Your task to perform on an android device: What is the capital of Italy? Image 0: 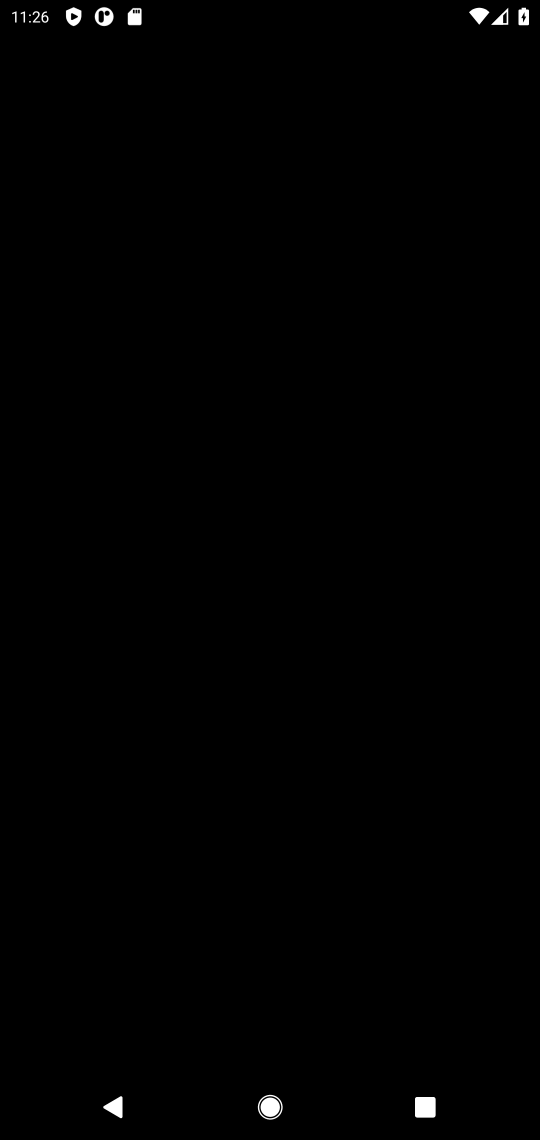
Step 0: click (389, 914)
Your task to perform on an android device: What is the capital of Italy? Image 1: 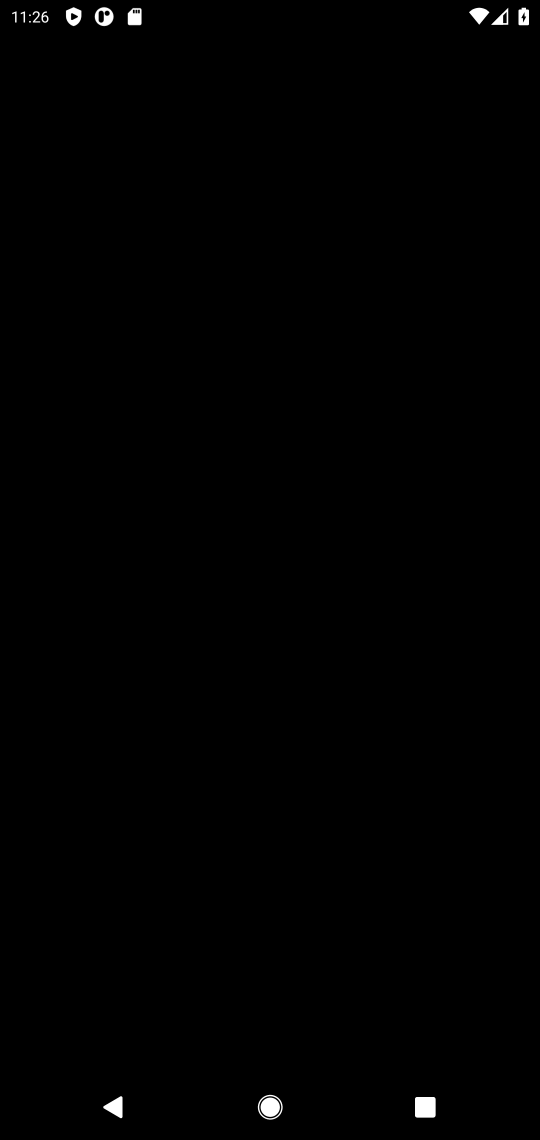
Step 1: press home button
Your task to perform on an android device: What is the capital of Italy? Image 2: 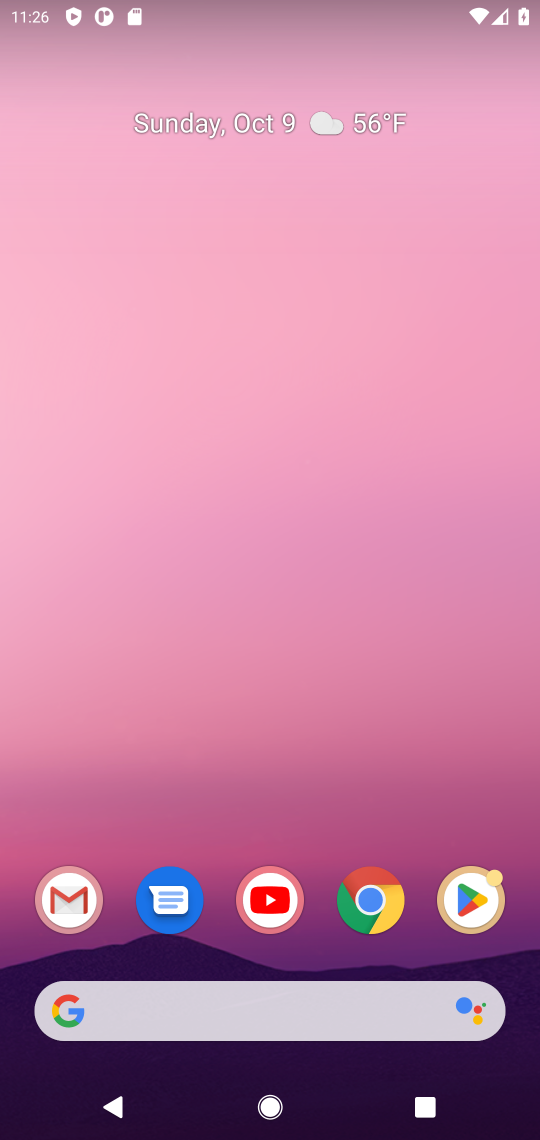
Step 2: press home button
Your task to perform on an android device: What is the capital of Italy? Image 3: 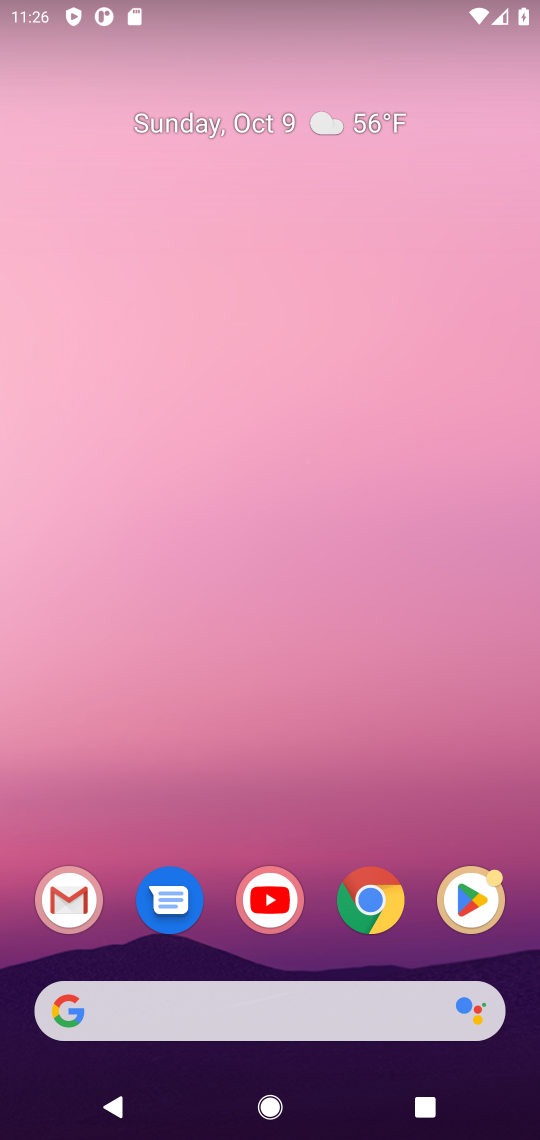
Step 3: press home button
Your task to perform on an android device: What is the capital of Italy? Image 4: 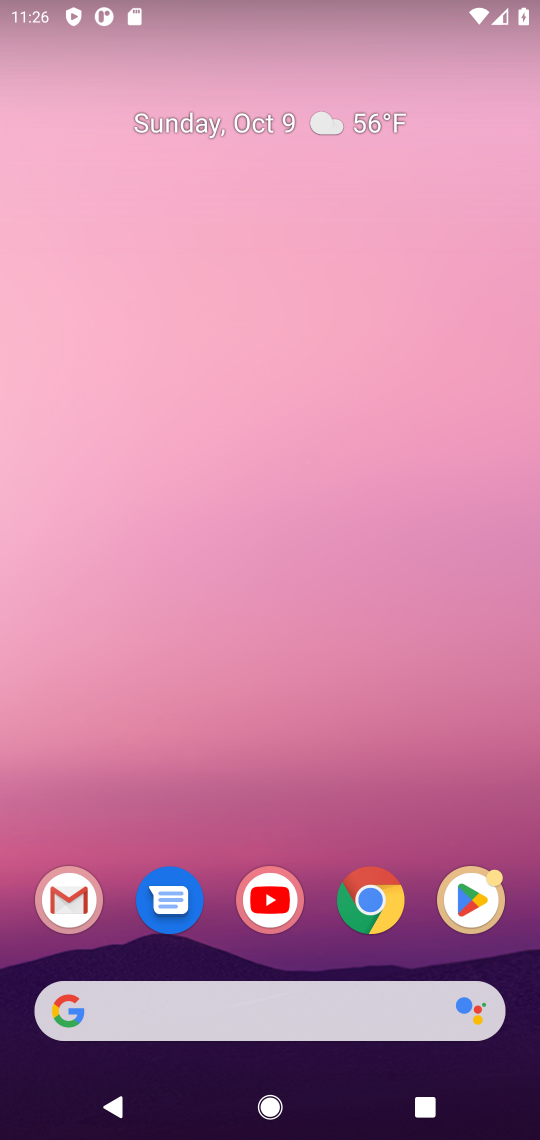
Step 4: click (358, 903)
Your task to perform on an android device: What is the capital of Italy? Image 5: 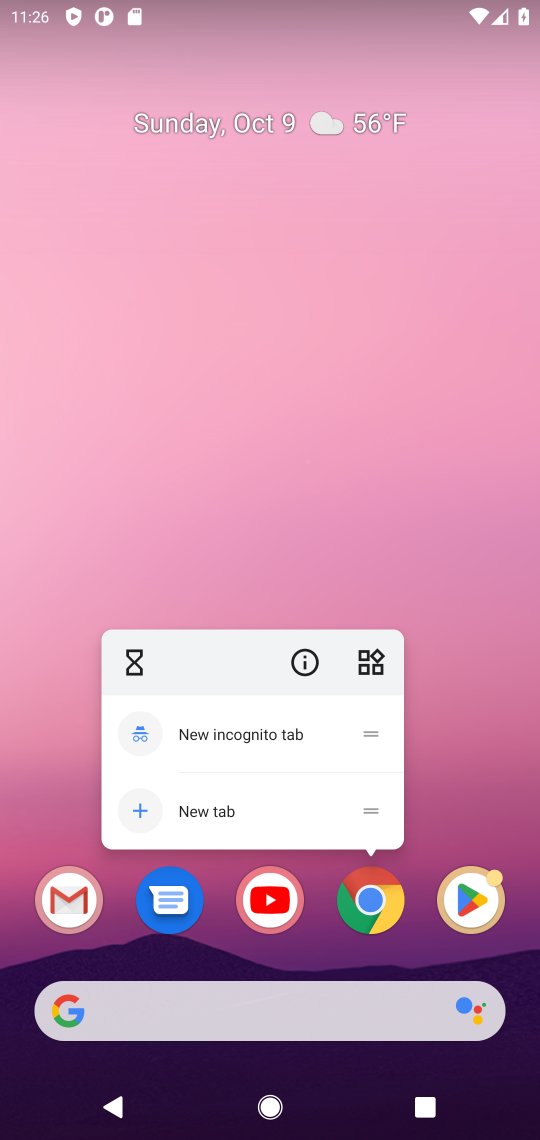
Step 5: click (332, 1020)
Your task to perform on an android device: What is the capital of Italy? Image 6: 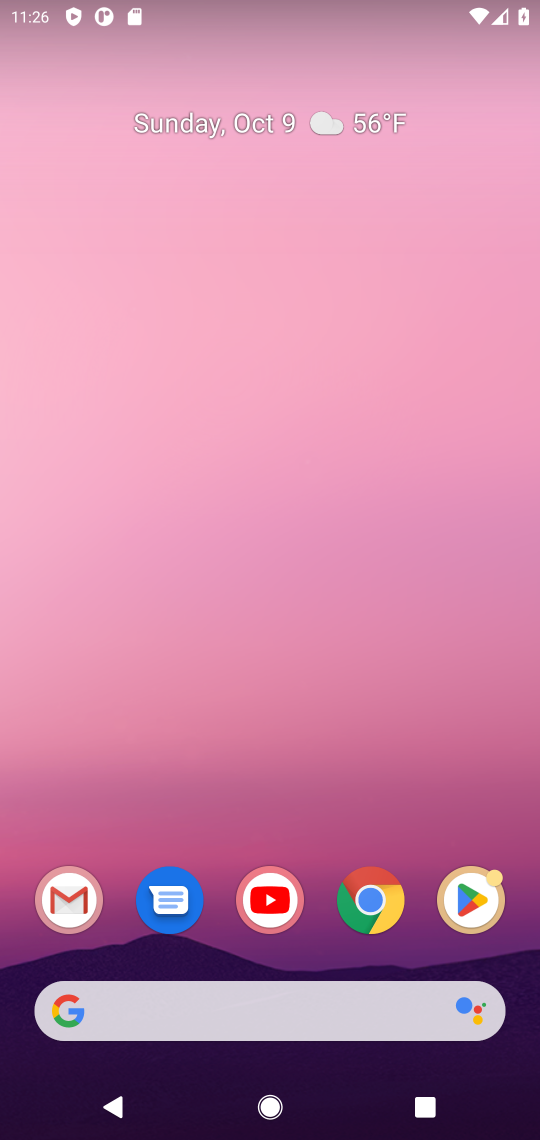
Step 6: click (332, 1020)
Your task to perform on an android device: What is the capital of Italy? Image 7: 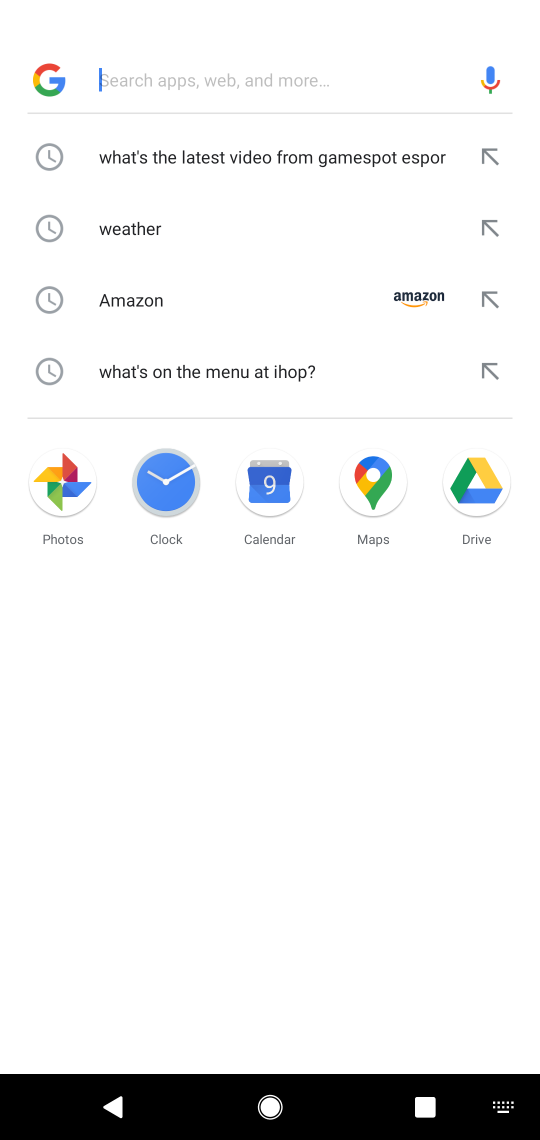
Step 7: type "What is the capital of Italy?"
Your task to perform on an android device: What is the capital of Italy? Image 8: 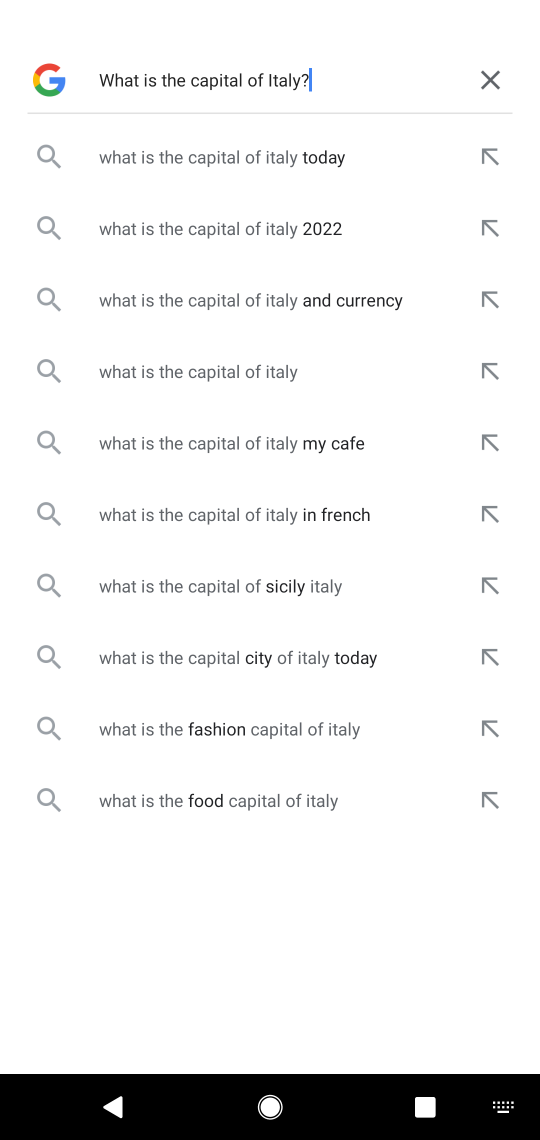
Step 8: type ""
Your task to perform on an android device: What is the capital of Italy? Image 9: 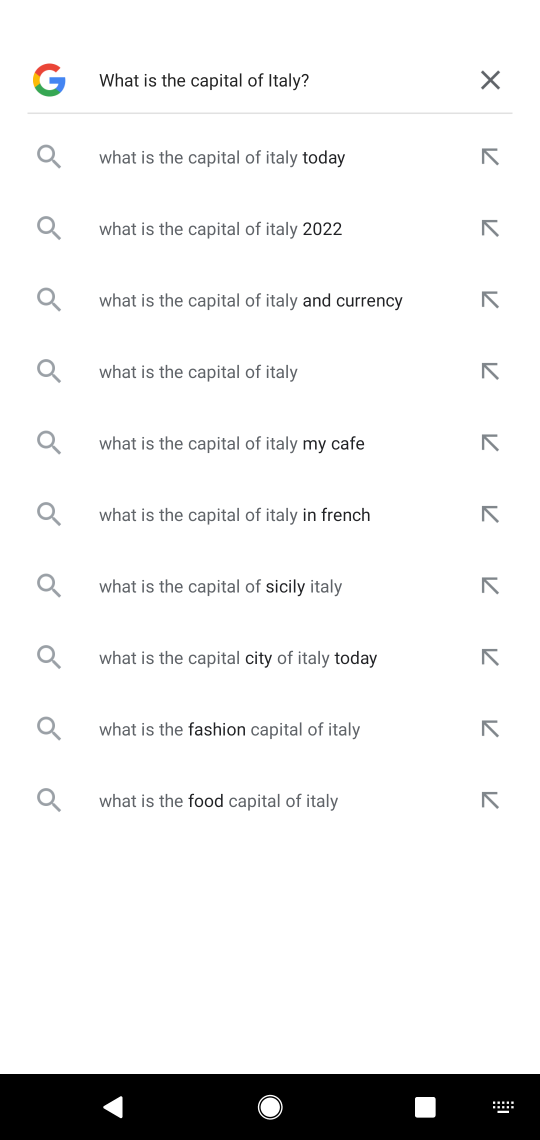
Step 9: press enter
Your task to perform on an android device: What is the capital of Italy? Image 10: 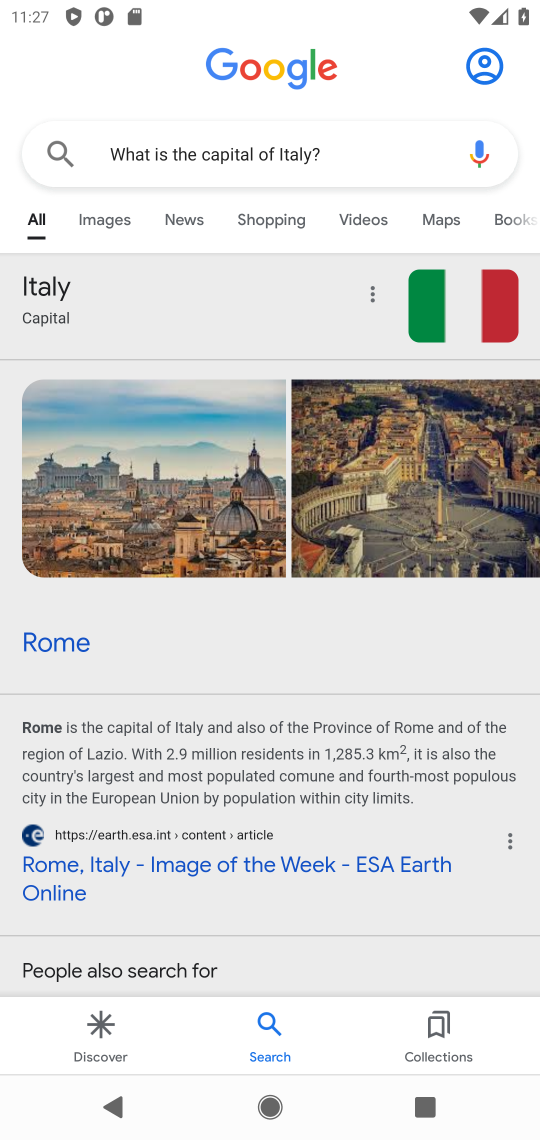
Step 10: click (87, 639)
Your task to perform on an android device: What is the capital of Italy? Image 11: 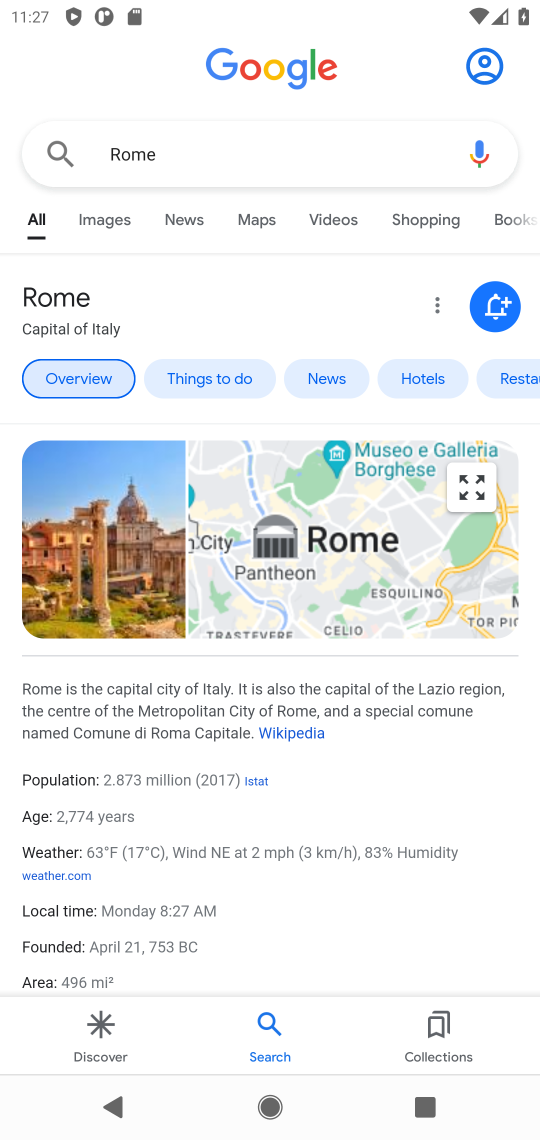
Step 11: drag from (202, 787) to (191, 383)
Your task to perform on an android device: What is the capital of Italy? Image 12: 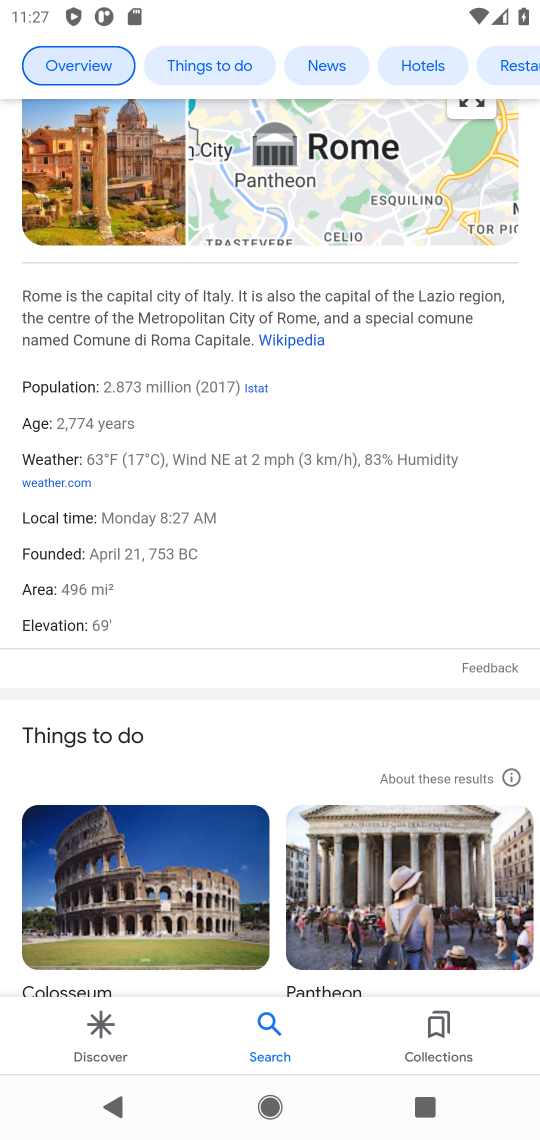
Step 12: click (280, 335)
Your task to perform on an android device: What is the capital of Italy? Image 13: 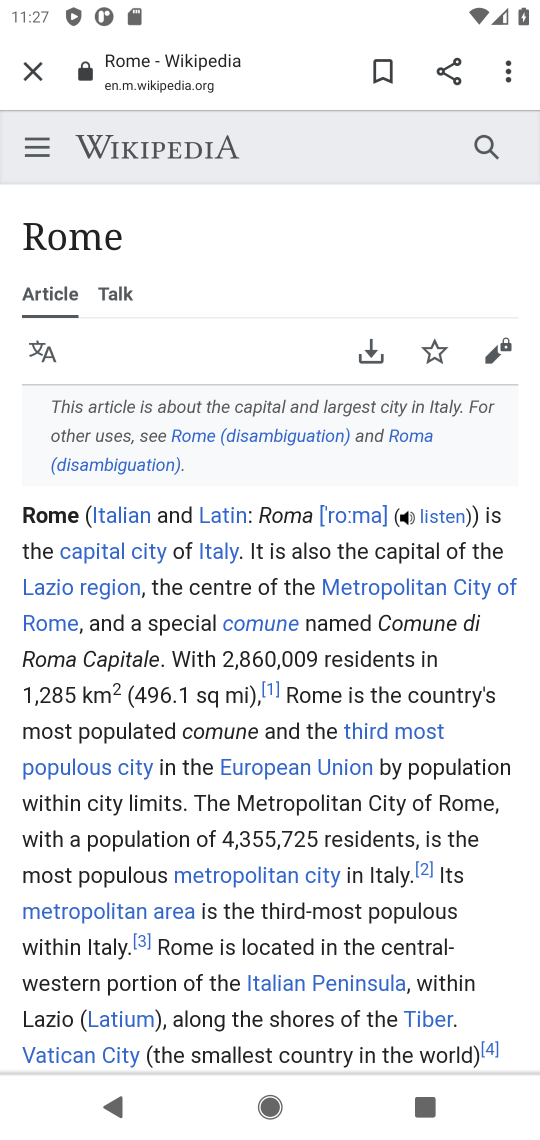
Step 13: drag from (310, 851) to (295, 314)
Your task to perform on an android device: What is the capital of Italy? Image 14: 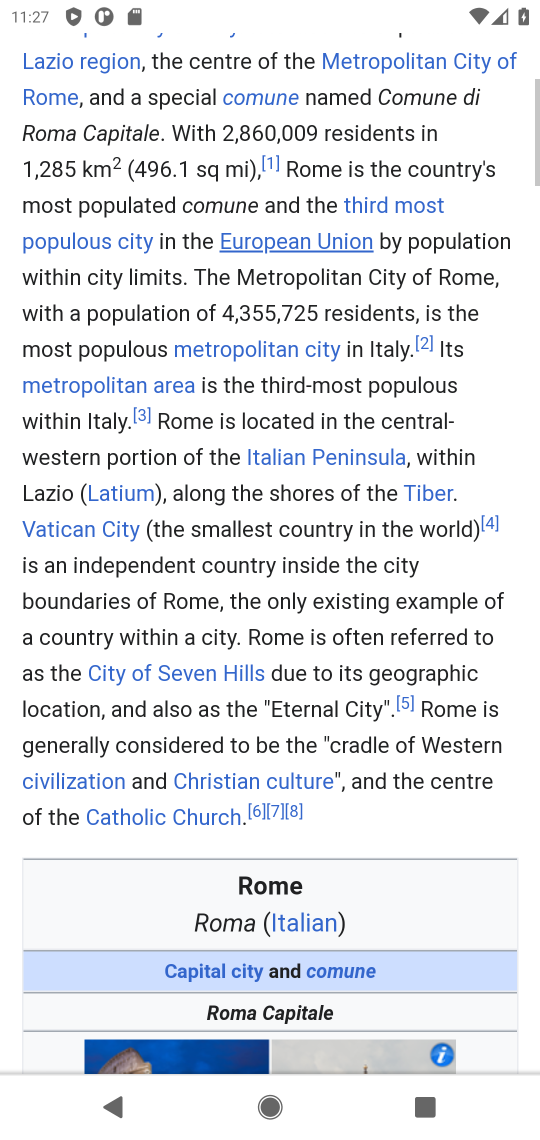
Step 14: drag from (250, 825) to (266, 343)
Your task to perform on an android device: What is the capital of Italy? Image 15: 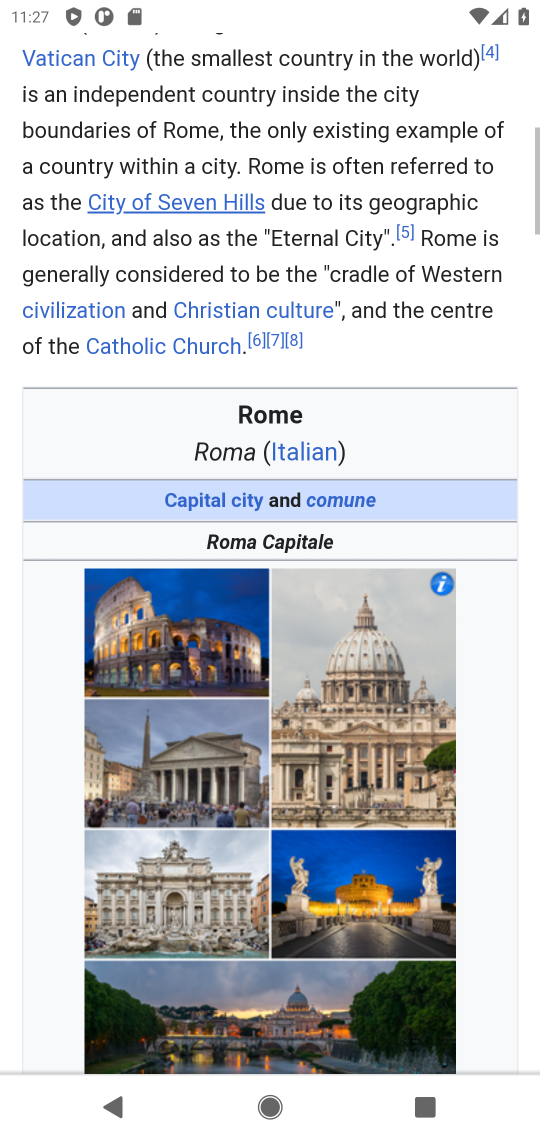
Step 15: drag from (291, 980) to (301, 325)
Your task to perform on an android device: What is the capital of Italy? Image 16: 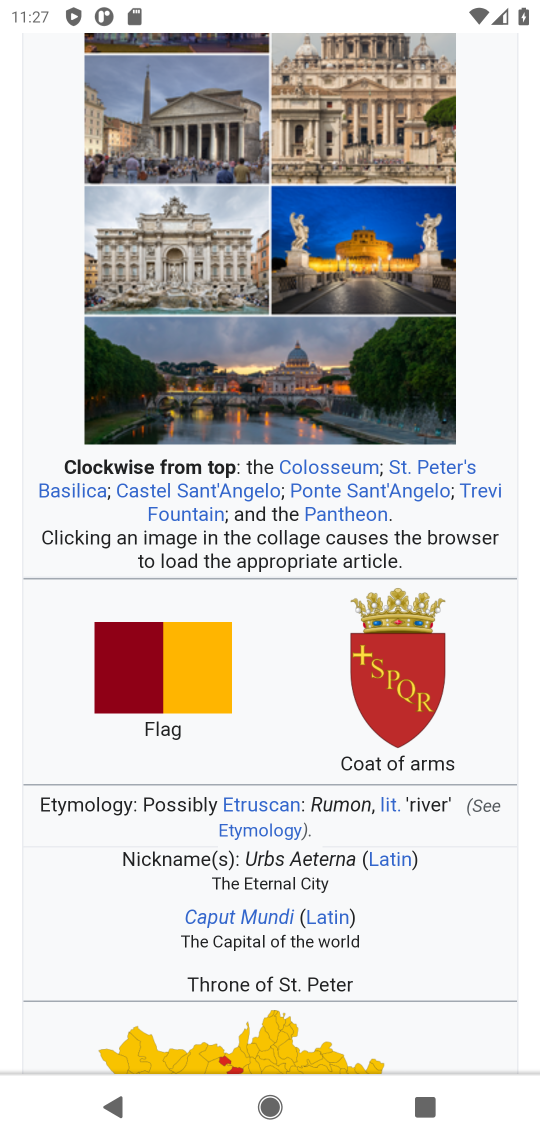
Step 16: drag from (267, 769) to (229, 255)
Your task to perform on an android device: What is the capital of Italy? Image 17: 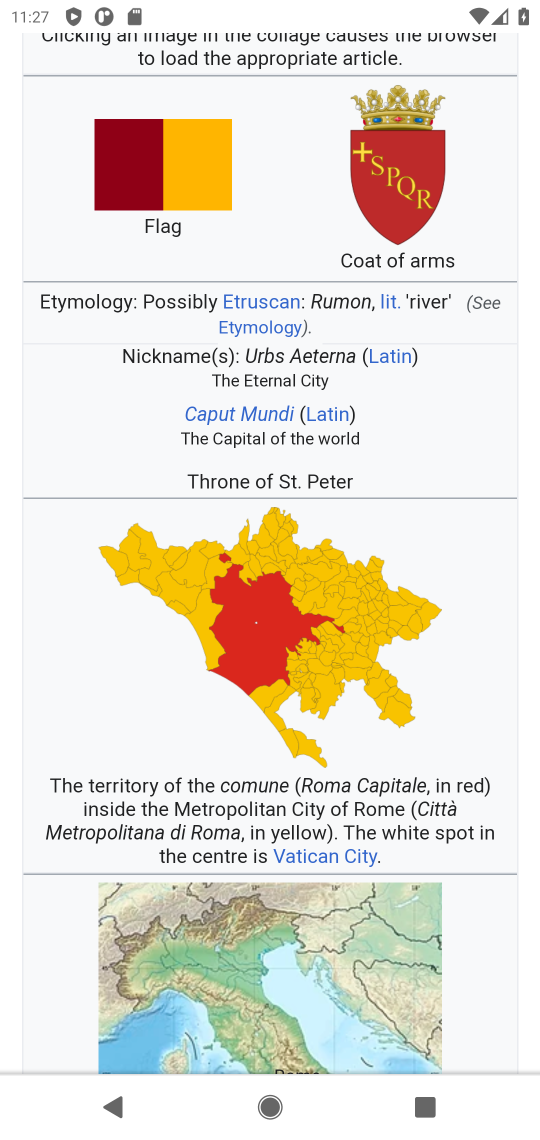
Step 17: drag from (307, 767) to (301, 183)
Your task to perform on an android device: What is the capital of Italy? Image 18: 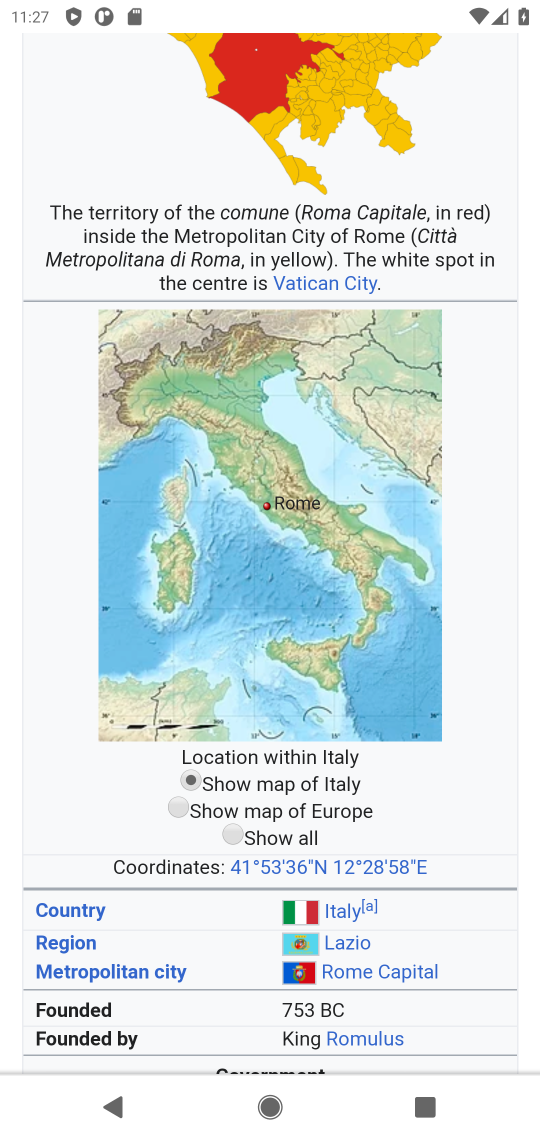
Step 18: drag from (357, 379) to (368, 134)
Your task to perform on an android device: What is the capital of Italy? Image 19: 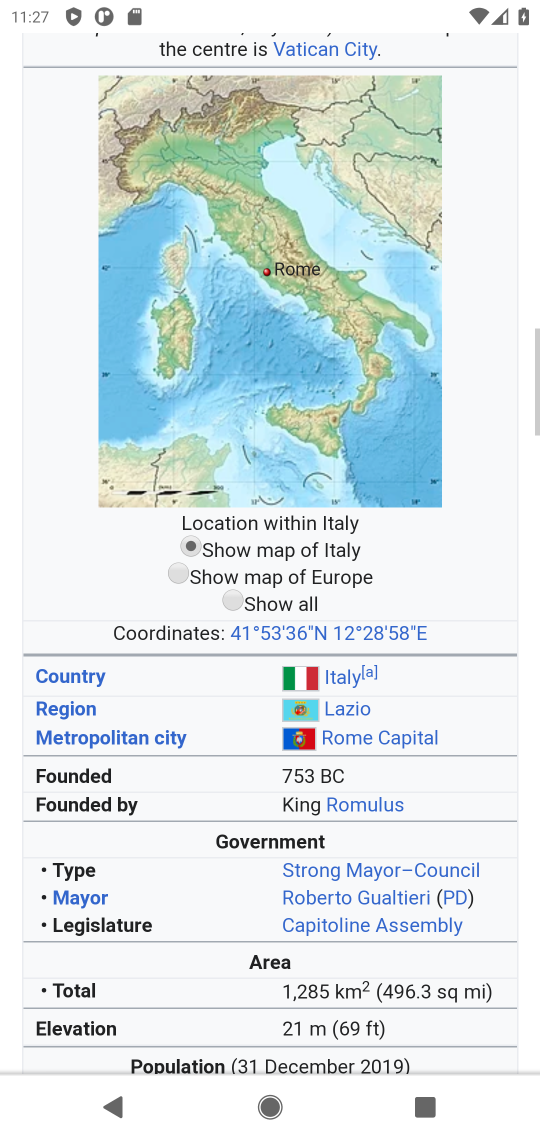
Step 19: drag from (277, 314) to (300, 61)
Your task to perform on an android device: What is the capital of Italy? Image 20: 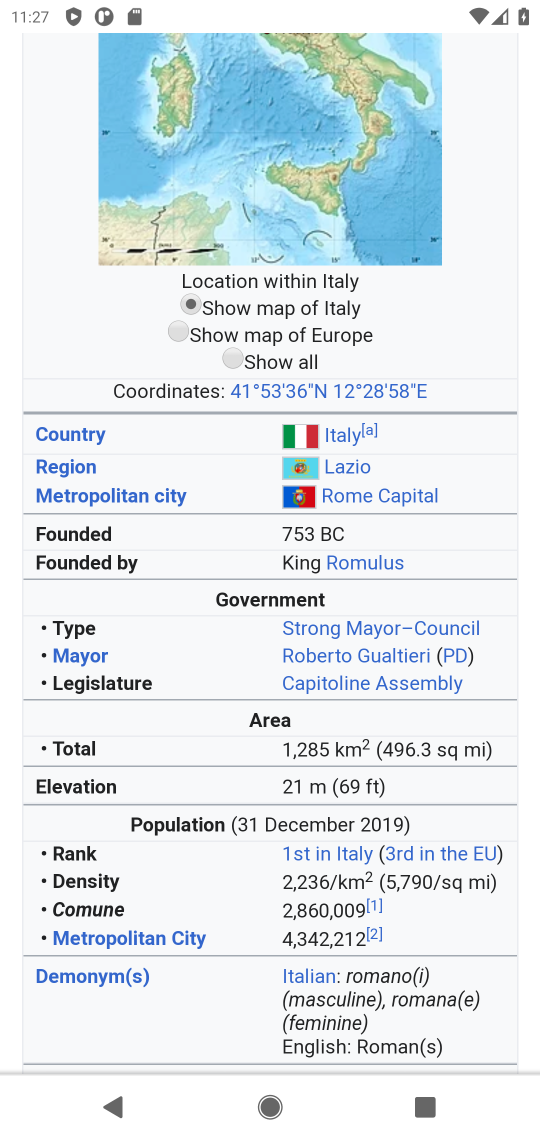
Step 20: drag from (273, 385) to (447, 134)
Your task to perform on an android device: What is the capital of Italy? Image 21: 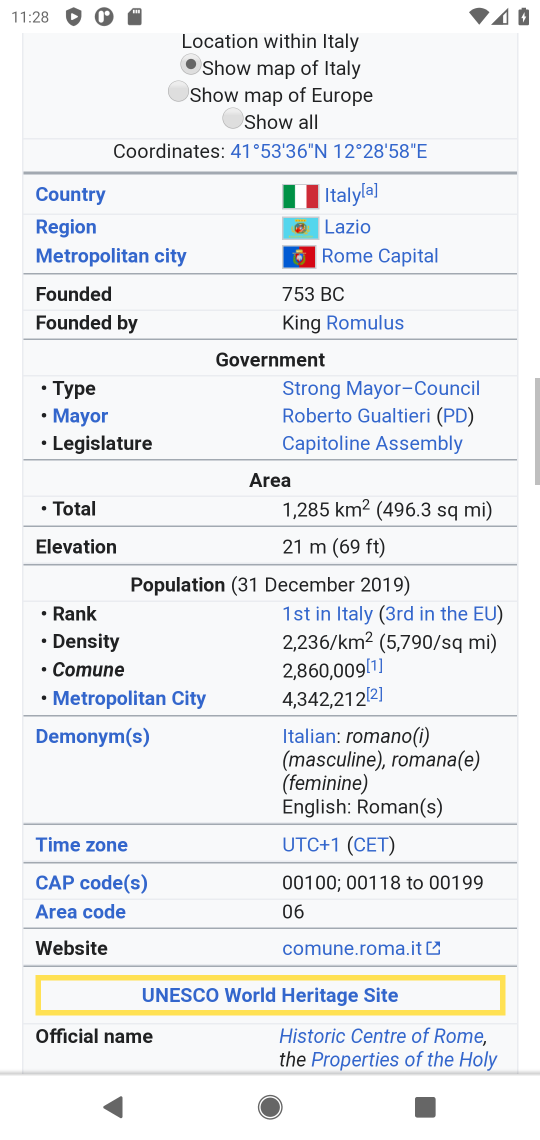
Step 21: drag from (333, 673) to (401, 145)
Your task to perform on an android device: What is the capital of Italy? Image 22: 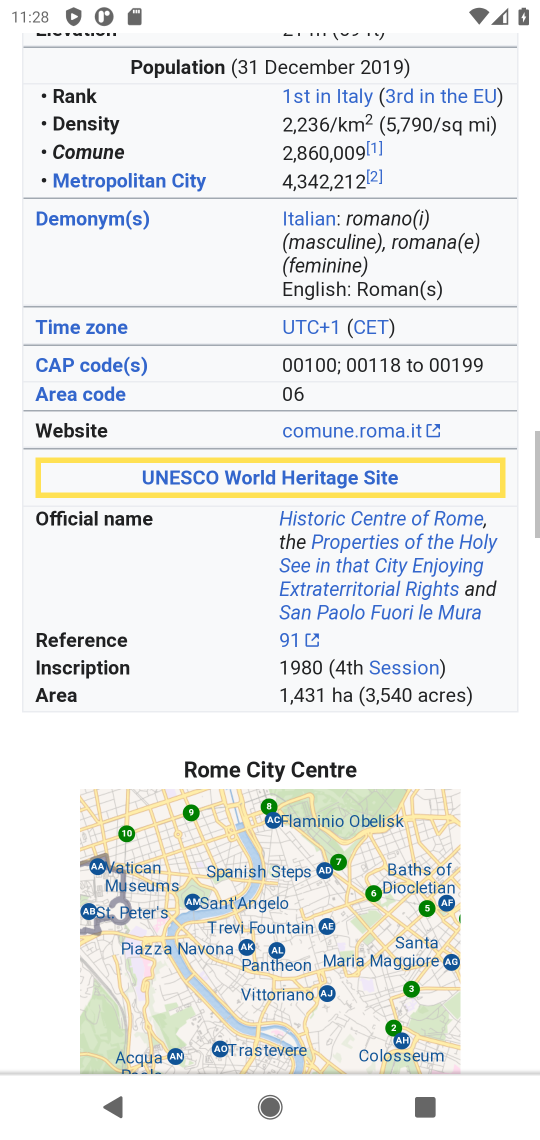
Step 22: drag from (359, 472) to (368, 177)
Your task to perform on an android device: What is the capital of Italy? Image 23: 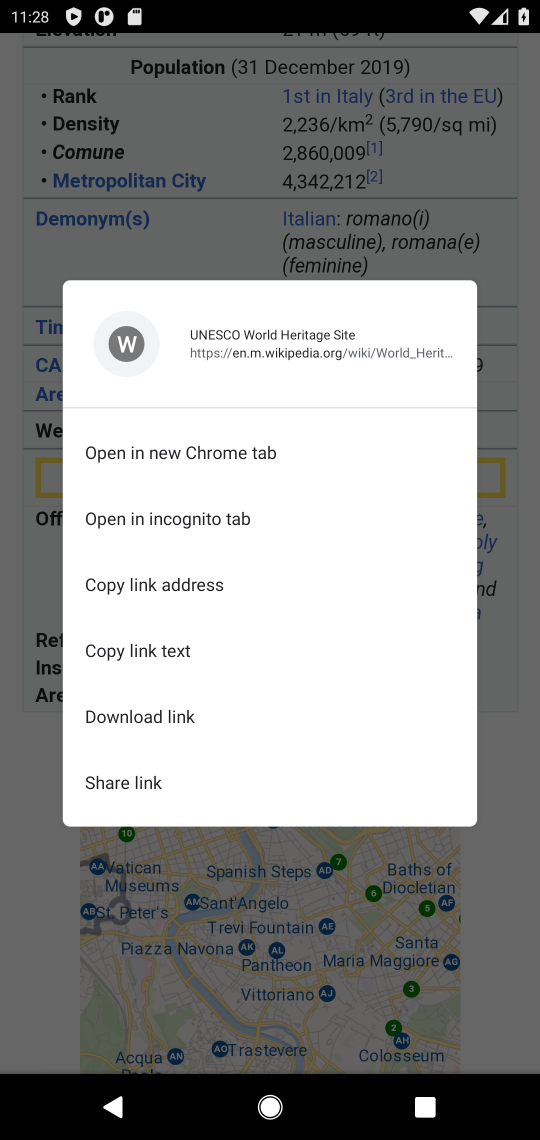
Step 23: drag from (262, 677) to (315, 169)
Your task to perform on an android device: What is the capital of Italy? Image 24: 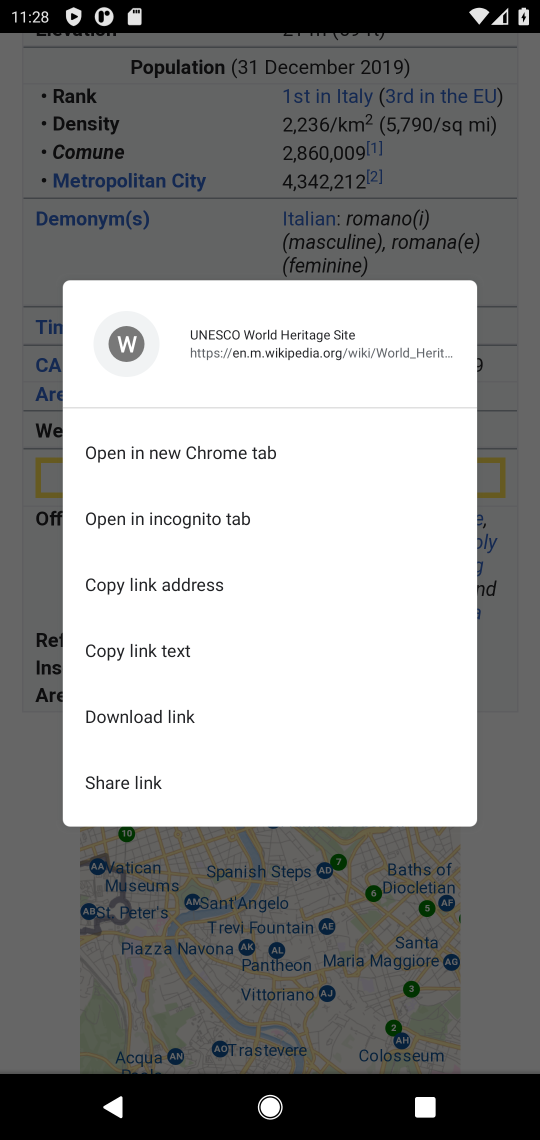
Step 24: click (315, 168)
Your task to perform on an android device: What is the capital of Italy? Image 25: 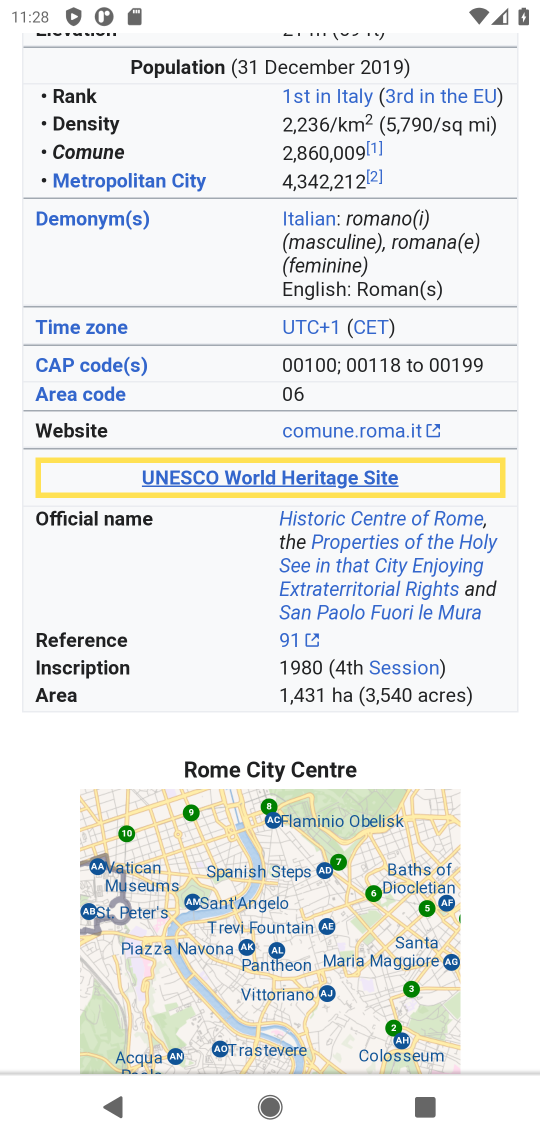
Step 25: press back button
Your task to perform on an android device: What is the capital of Italy? Image 26: 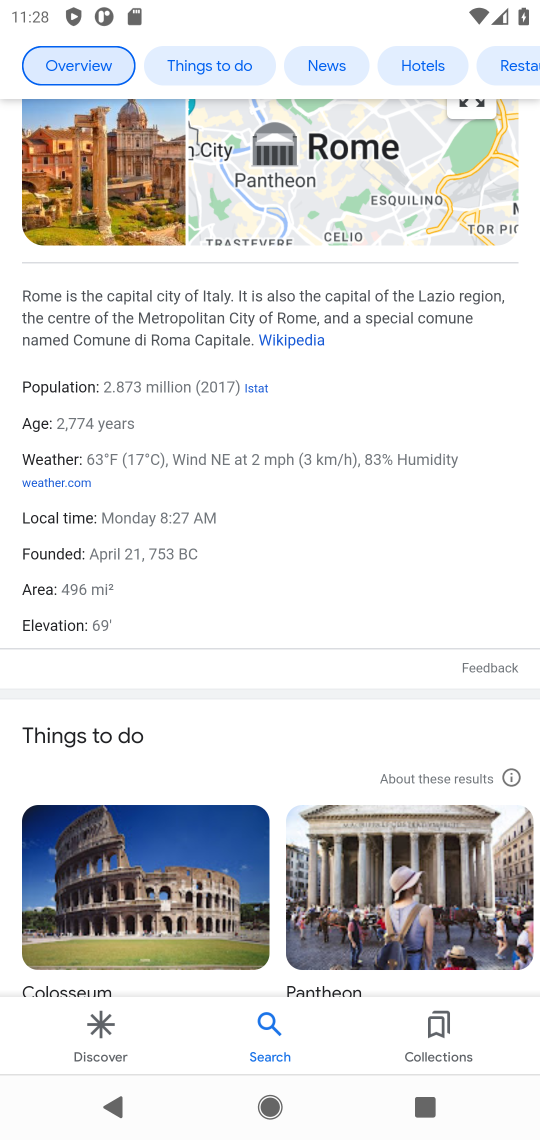
Step 26: drag from (160, 346) to (238, 630)
Your task to perform on an android device: What is the capital of Italy? Image 27: 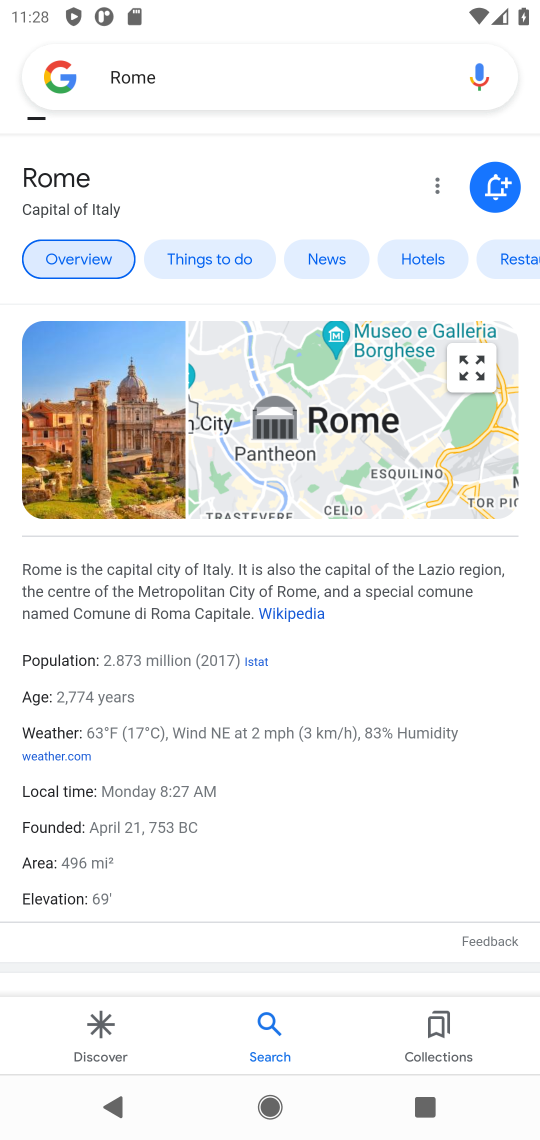
Step 27: drag from (192, 369) to (197, 680)
Your task to perform on an android device: What is the capital of Italy? Image 28: 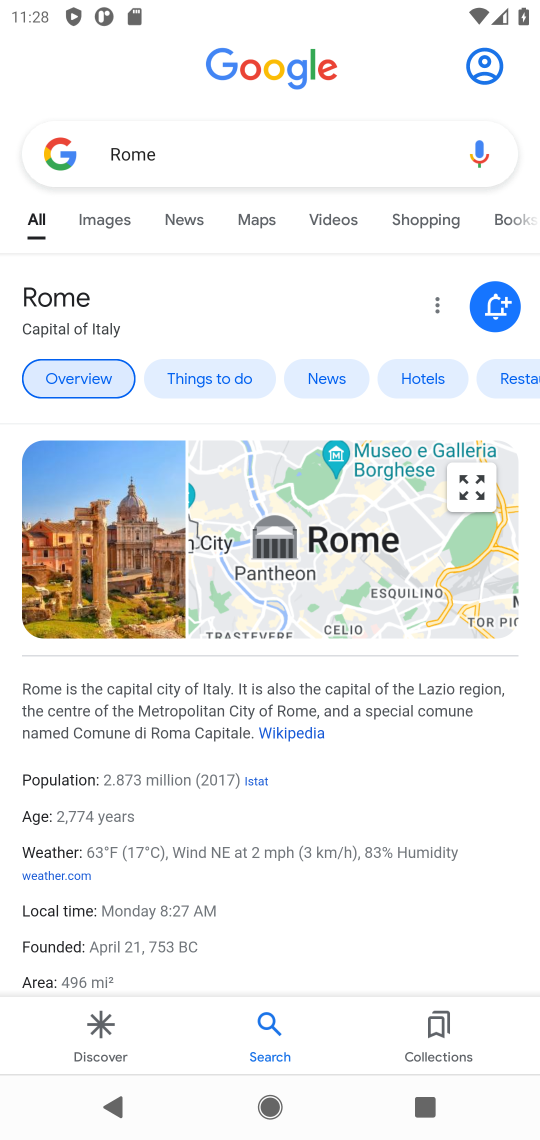
Step 28: drag from (240, 787) to (291, 259)
Your task to perform on an android device: What is the capital of Italy? Image 29: 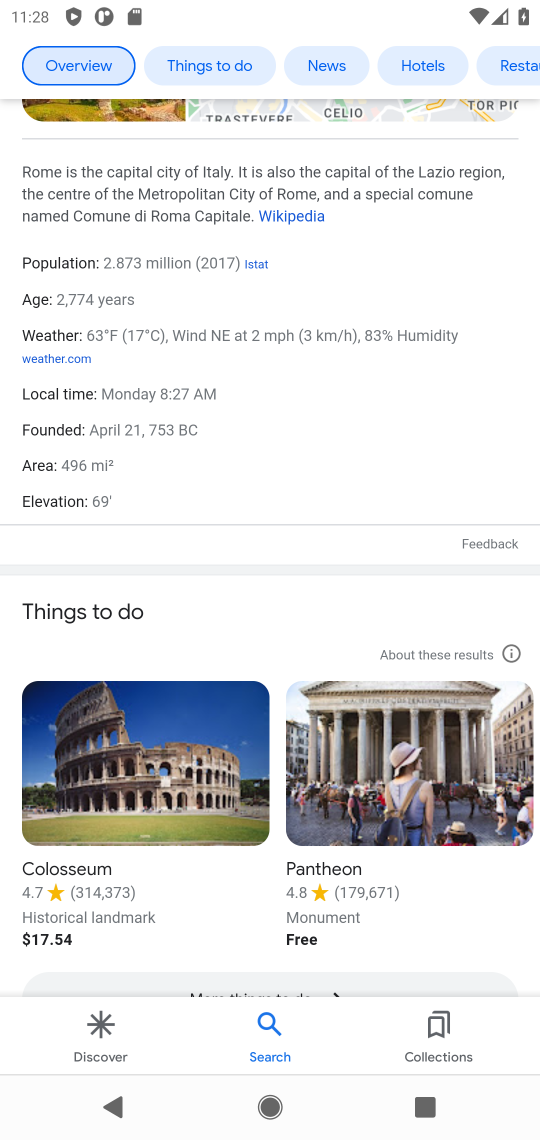
Step 29: drag from (291, 605) to (255, 175)
Your task to perform on an android device: What is the capital of Italy? Image 30: 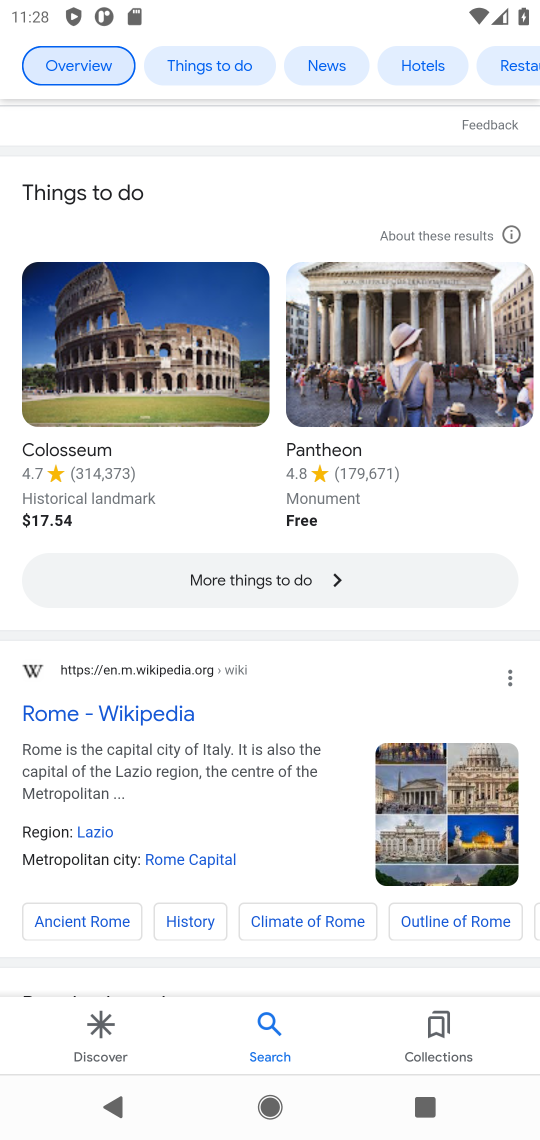
Step 30: drag from (78, 643) to (182, 119)
Your task to perform on an android device: What is the capital of Italy? Image 31: 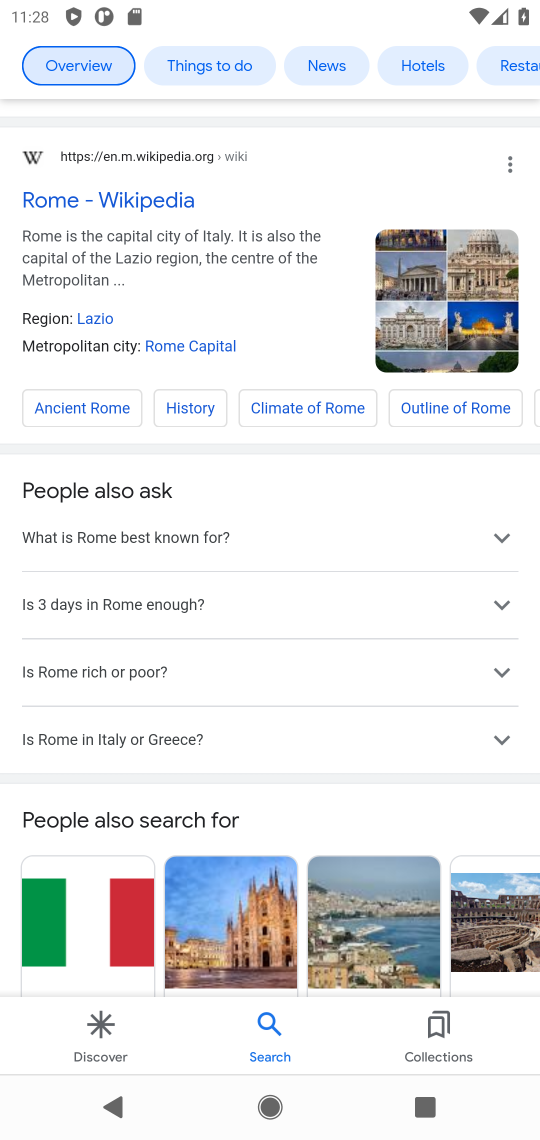
Step 31: drag from (231, 784) to (299, 116)
Your task to perform on an android device: What is the capital of Italy? Image 32: 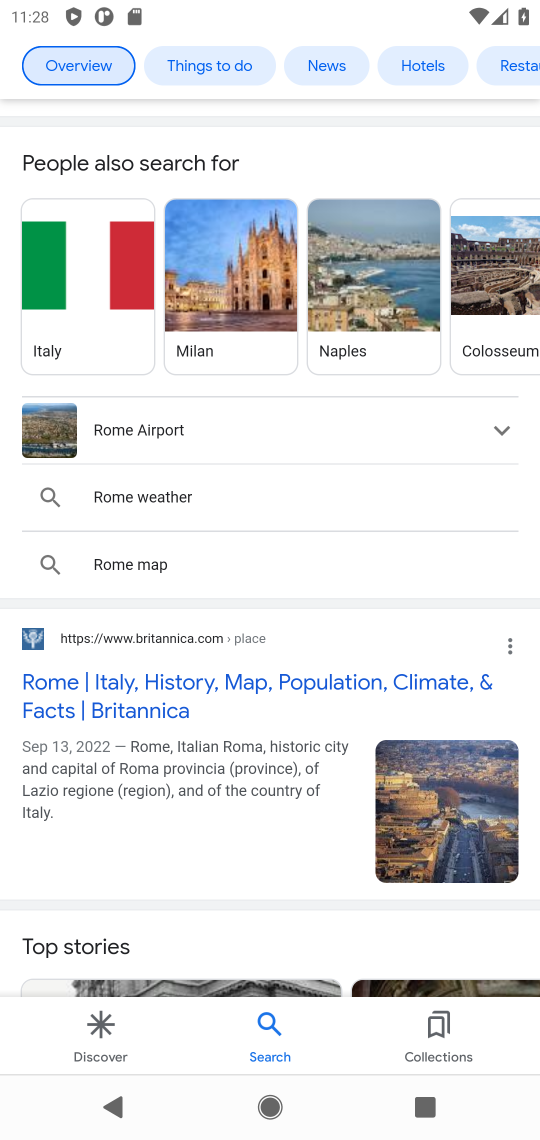
Step 32: click (227, 675)
Your task to perform on an android device: What is the capital of Italy? Image 33: 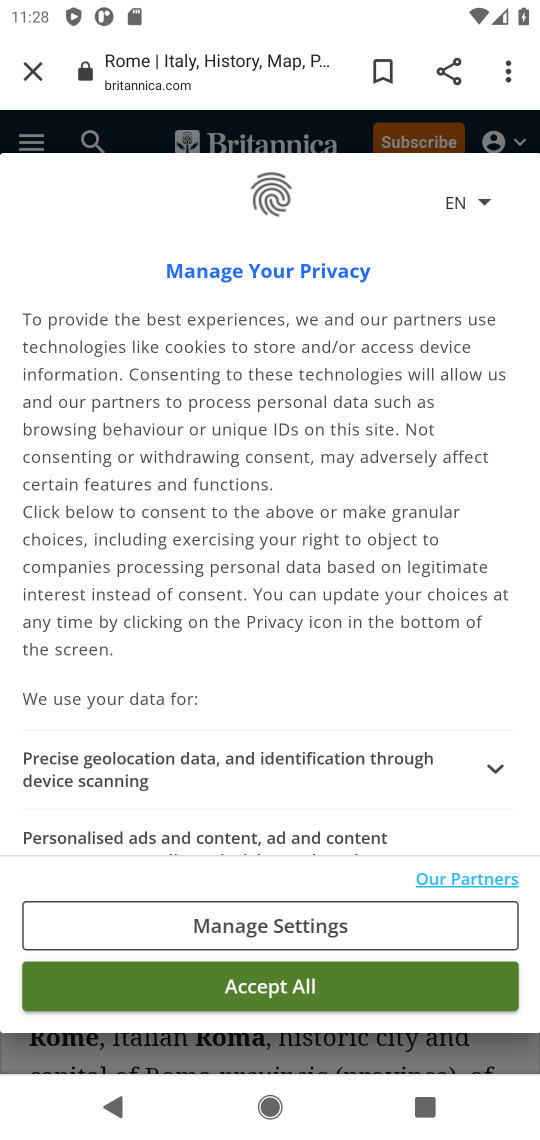
Step 33: click (216, 967)
Your task to perform on an android device: What is the capital of Italy? Image 34: 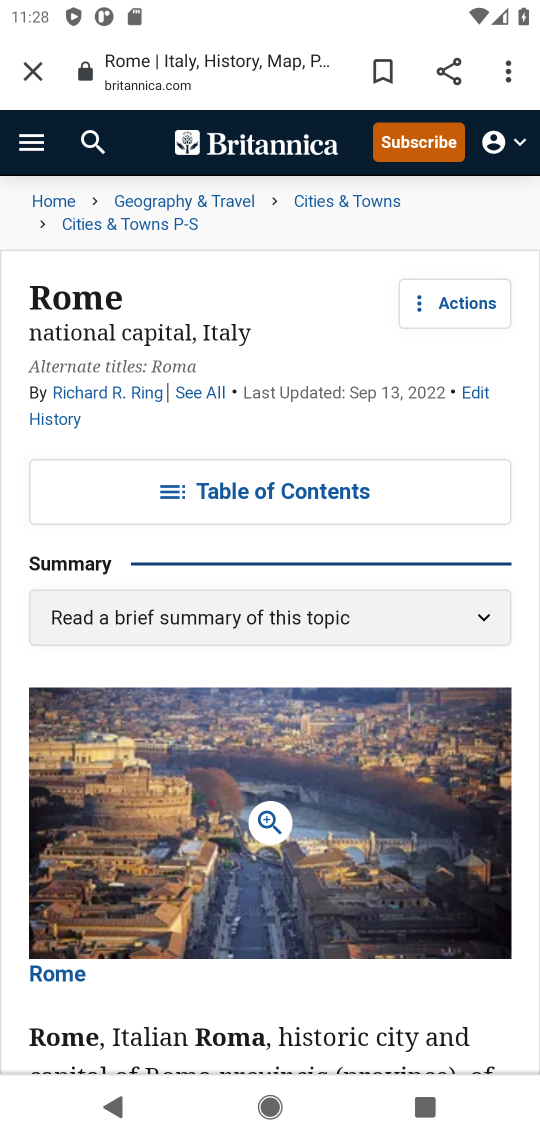
Step 34: drag from (275, 770) to (360, 244)
Your task to perform on an android device: What is the capital of Italy? Image 35: 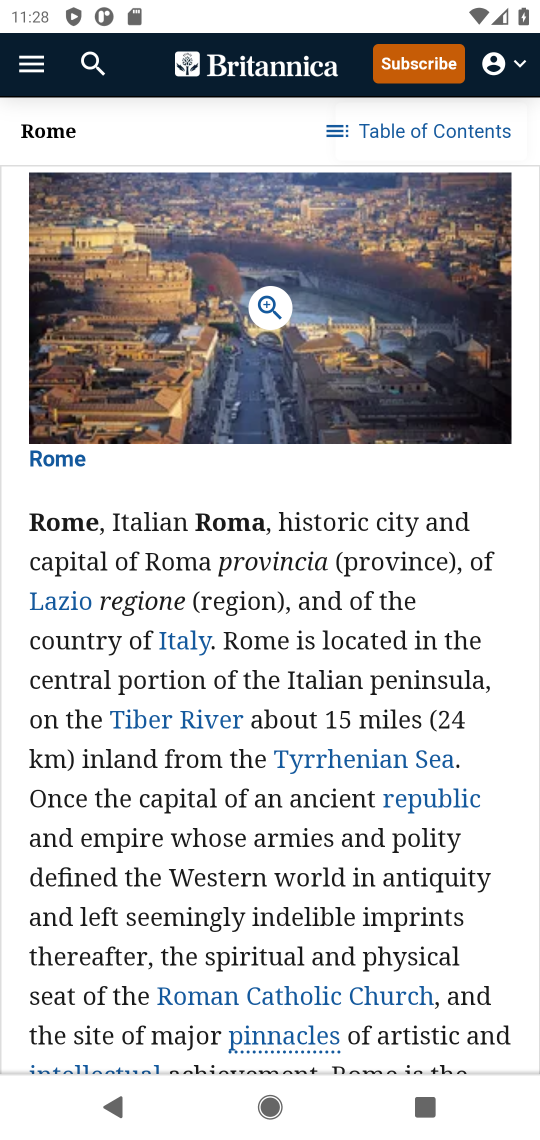
Step 35: drag from (373, 929) to (456, 300)
Your task to perform on an android device: What is the capital of Italy? Image 36: 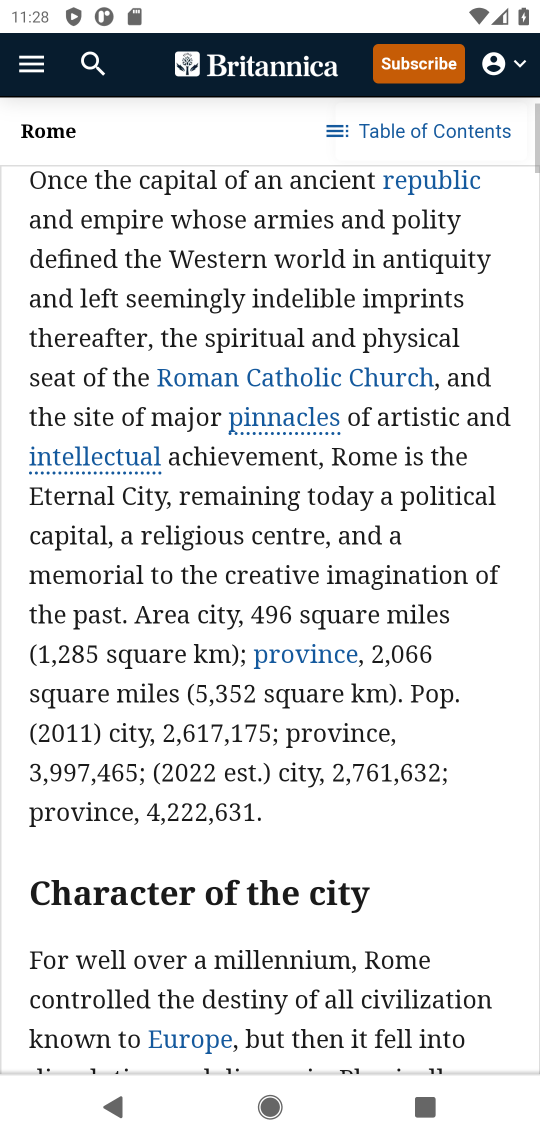
Step 36: drag from (372, 708) to (397, 306)
Your task to perform on an android device: What is the capital of Italy? Image 37: 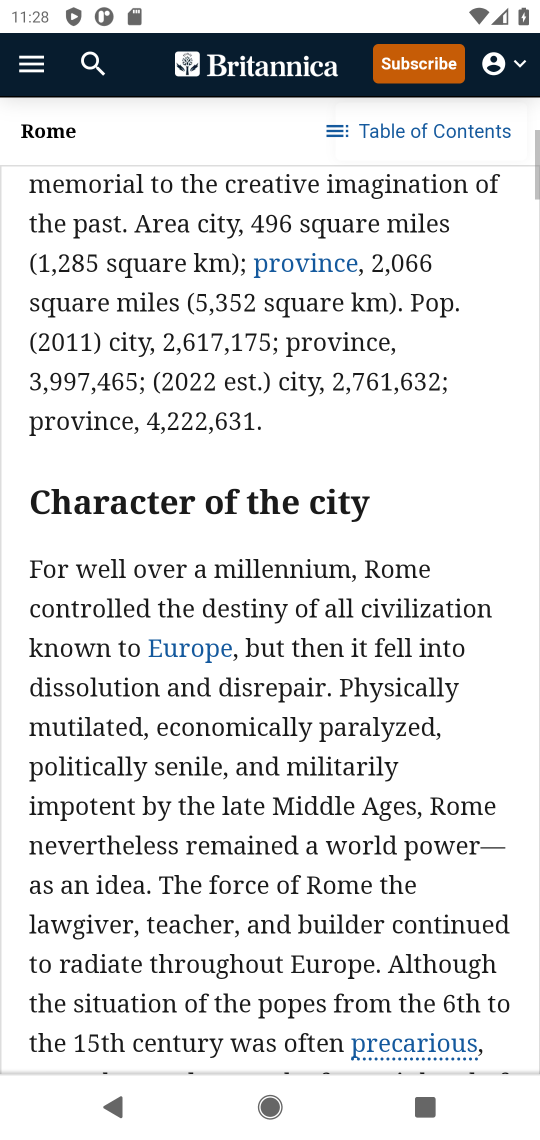
Step 37: drag from (332, 812) to (410, 308)
Your task to perform on an android device: What is the capital of Italy? Image 38: 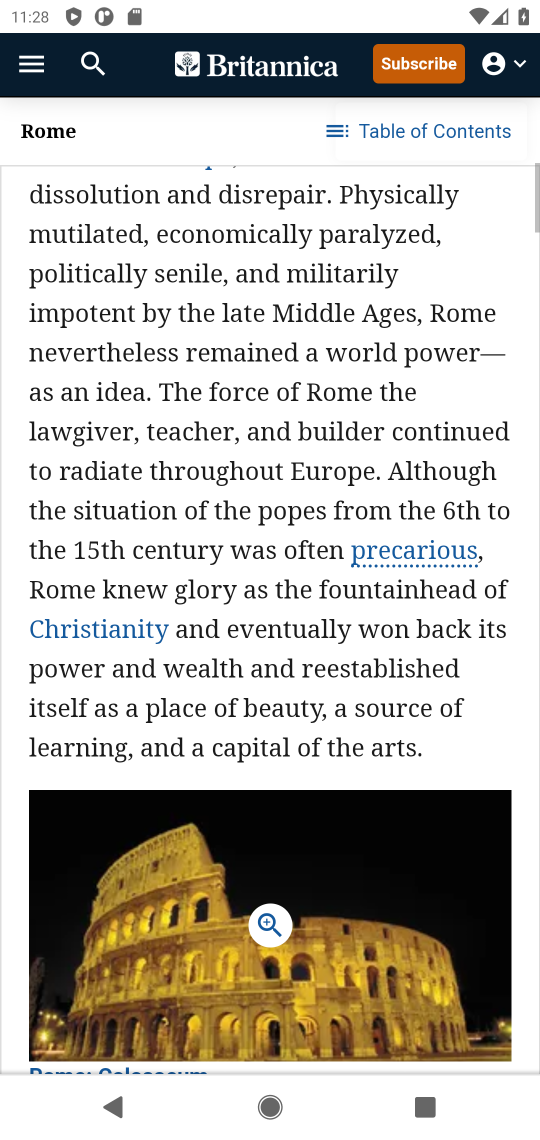
Step 38: drag from (357, 642) to (398, 322)
Your task to perform on an android device: What is the capital of Italy? Image 39: 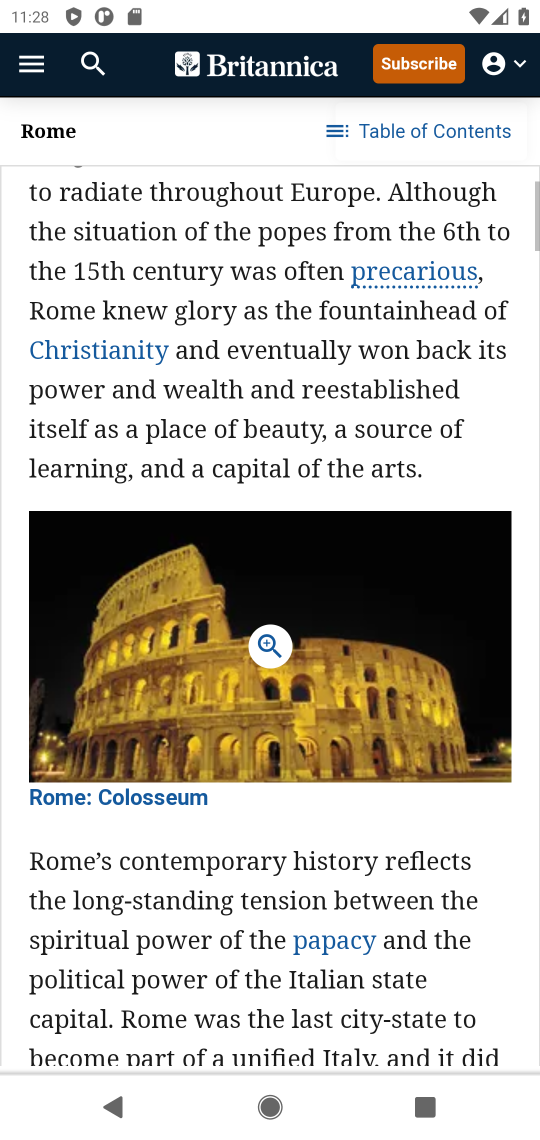
Step 39: drag from (320, 795) to (430, 247)
Your task to perform on an android device: What is the capital of Italy? Image 40: 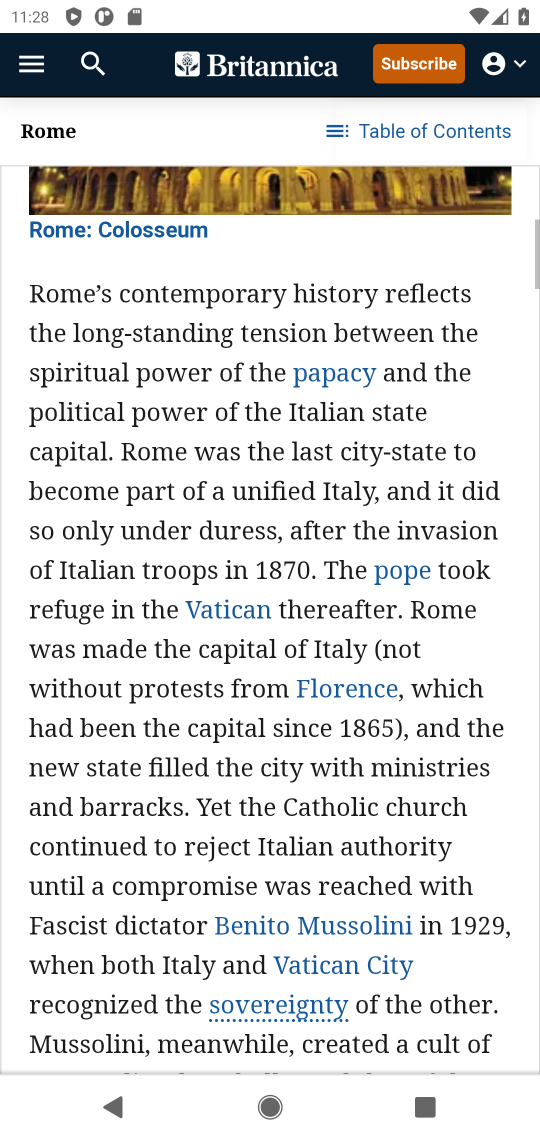
Step 40: drag from (382, 761) to (382, 304)
Your task to perform on an android device: What is the capital of Italy? Image 41: 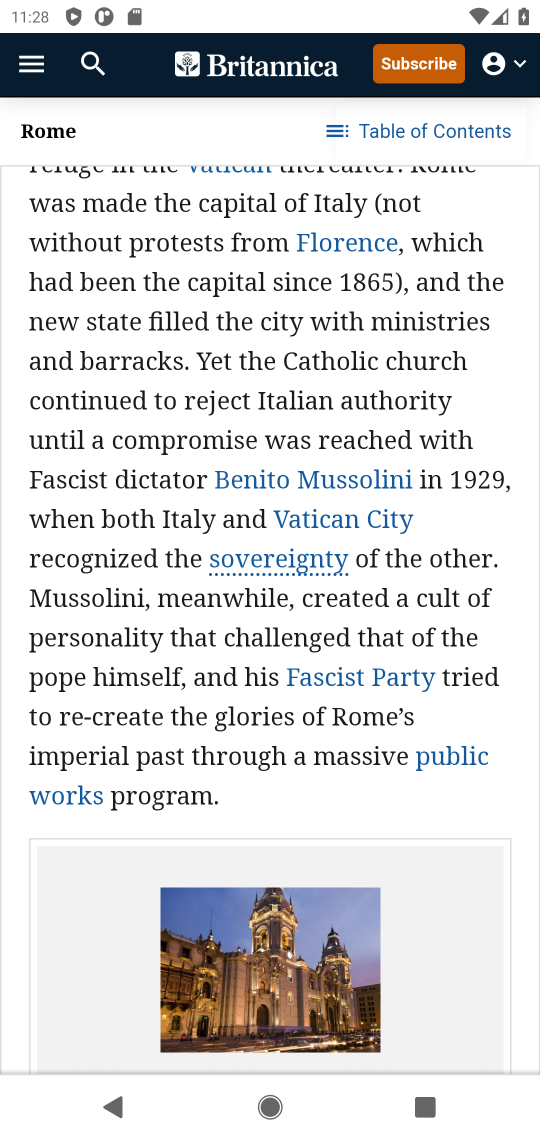
Step 41: drag from (342, 298) to (342, 845)
Your task to perform on an android device: What is the capital of Italy? Image 42: 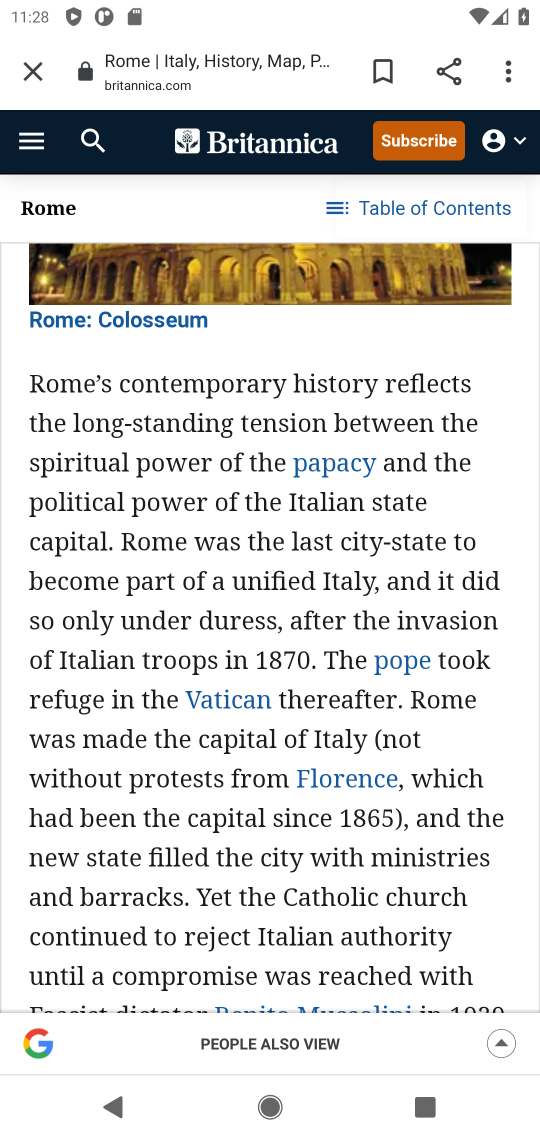
Step 42: drag from (328, 374) to (330, 824)
Your task to perform on an android device: What is the capital of Italy? Image 43: 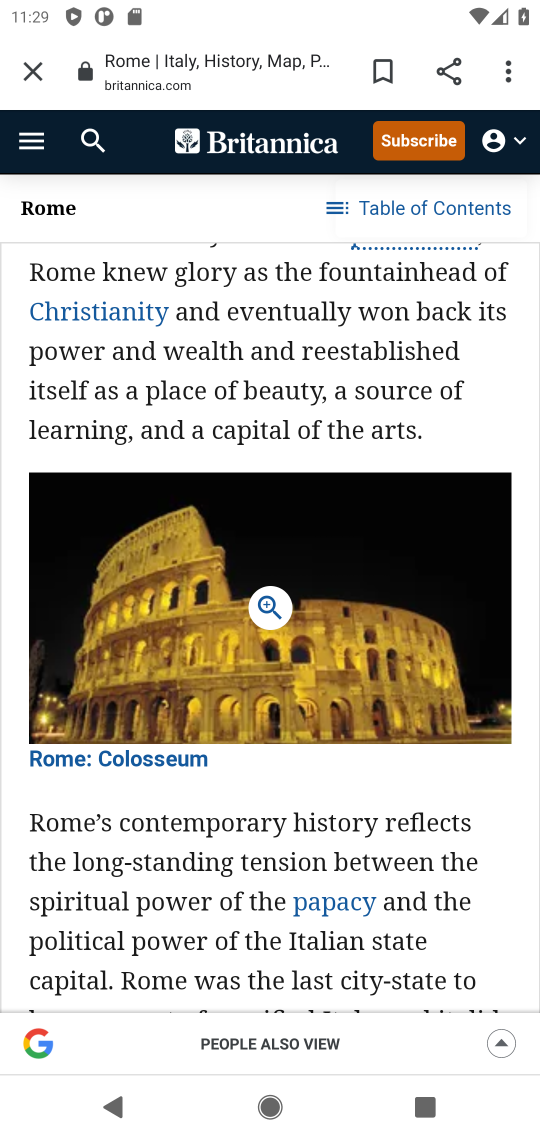
Step 43: click (280, 608)
Your task to perform on an android device: What is the capital of Italy? Image 44: 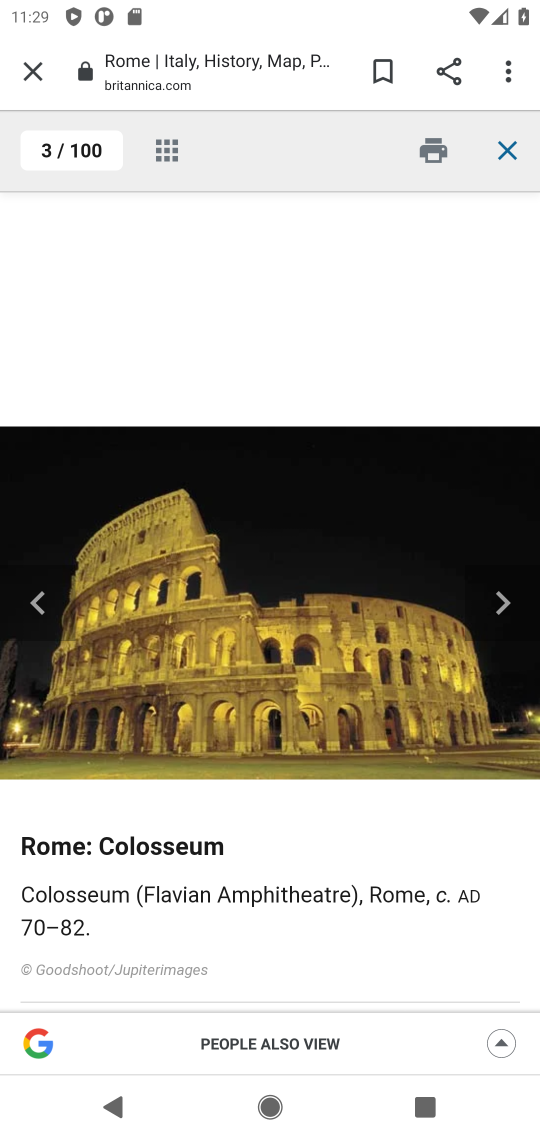
Step 44: click (495, 600)
Your task to perform on an android device: What is the capital of Italy? Image 45: 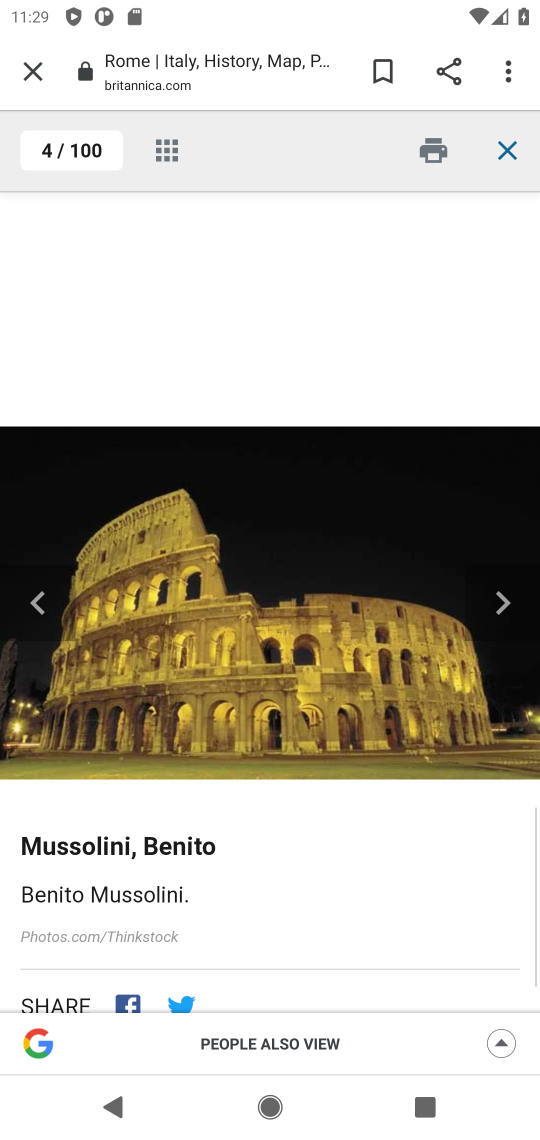
Step 45: click (495, 600)
Your task to perform on an android device: What is the capital of Italy? Image 46: 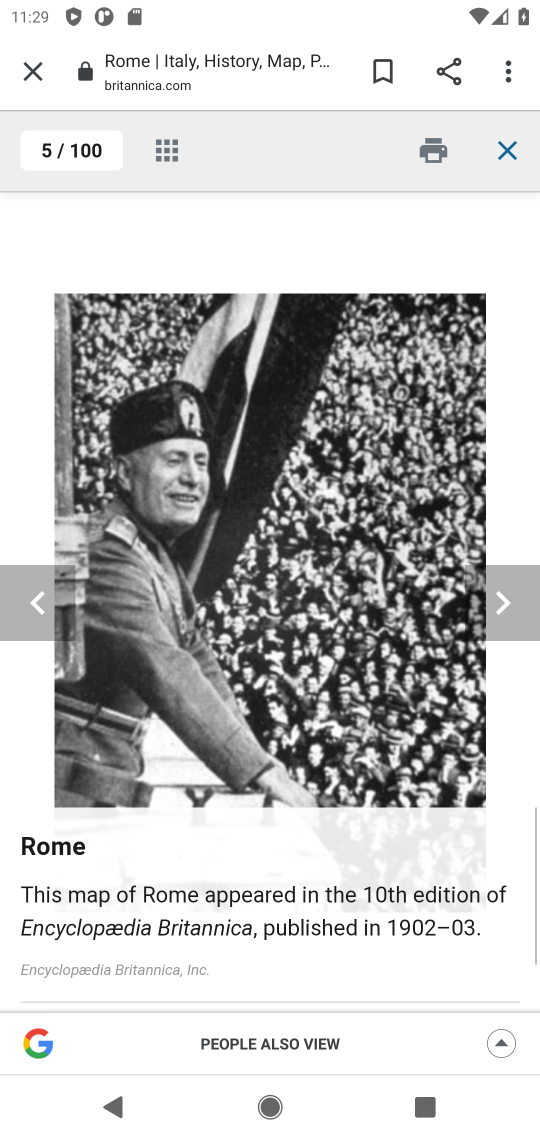
Step 46: click (495, 600)
Your task to perform on an android device: What is the capital of Italy? Image 47: 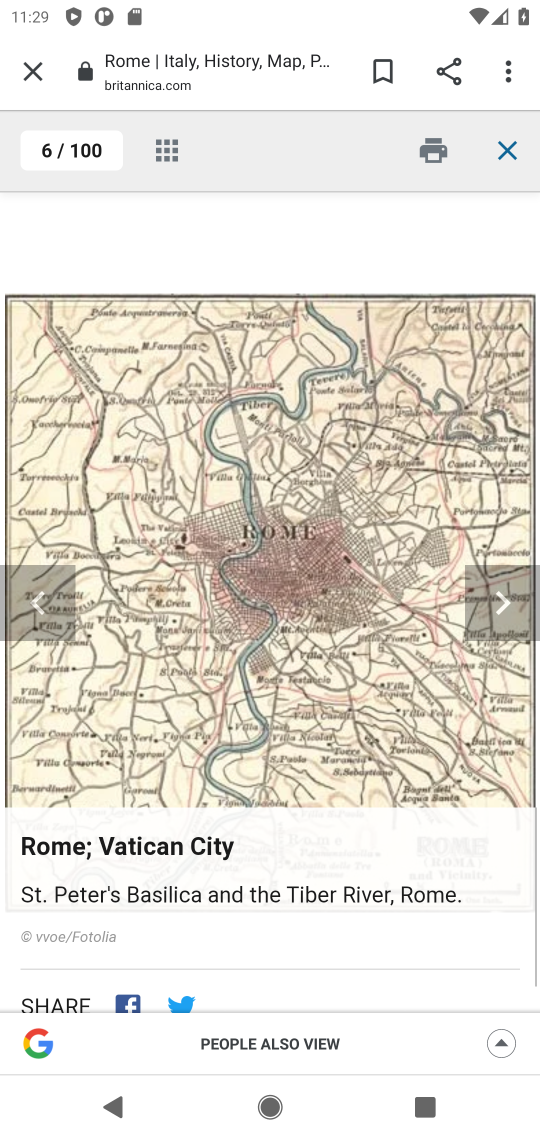
Step 47: click (495, 600)
Your task to perform on an android device: What is the capital of Italy? Image 48: 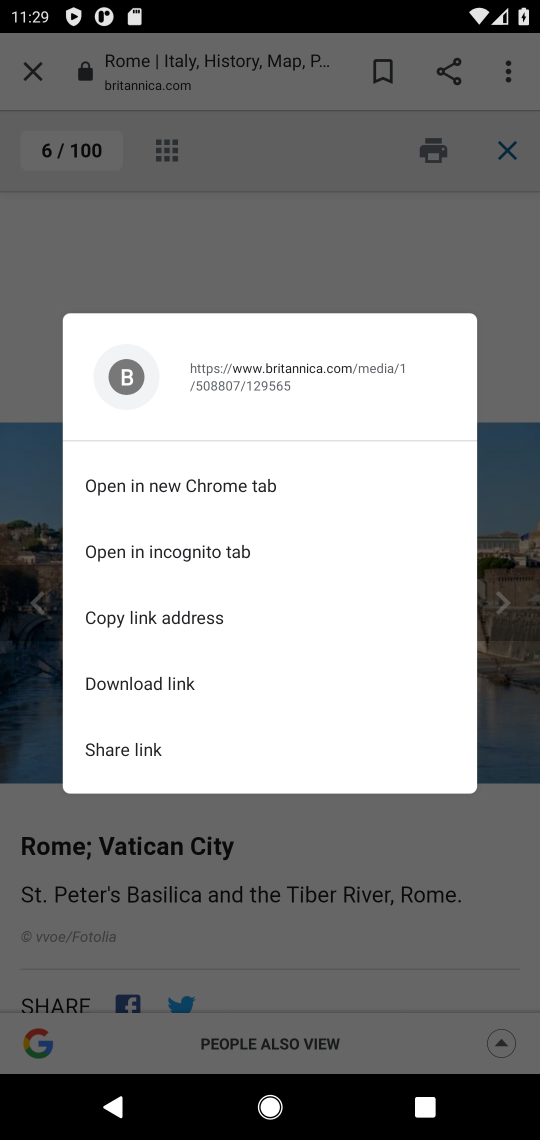
Step 48: click (495, 600)
Your task to perform on an android device: What is the capital of Italy? Image 49: 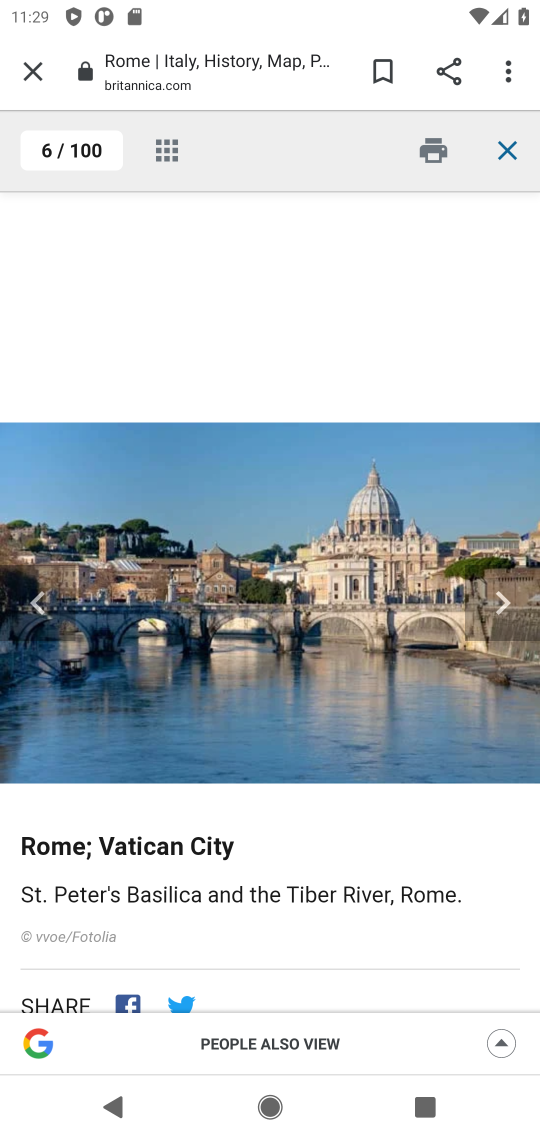
Step 49: click (406, 264)
Your task to perform on an android device: What is the capital of Italy? Image 50: 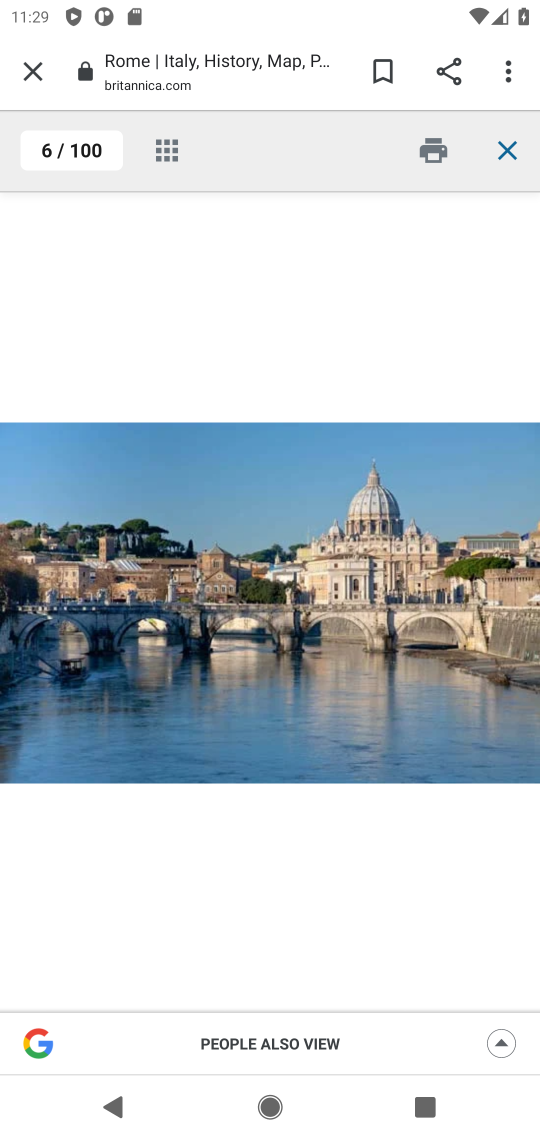
Step 50: task complete